Your task to perform on an android device: Go to accessibility settings Image 0: 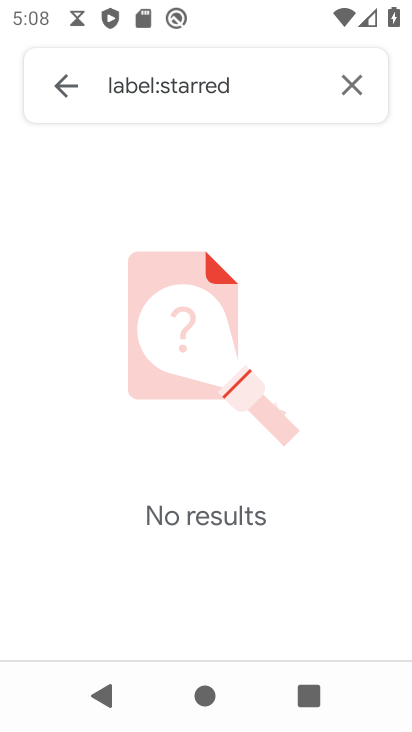
Step 0: press back button
Your task to perform on an android device: Go to accessibility settings Image 1: 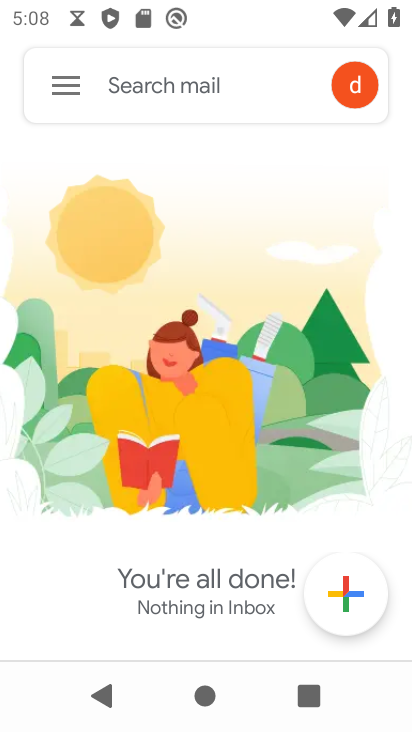
Step 1: press back button
Your task to perform on an android device: Go to accessibility settings Image 2: 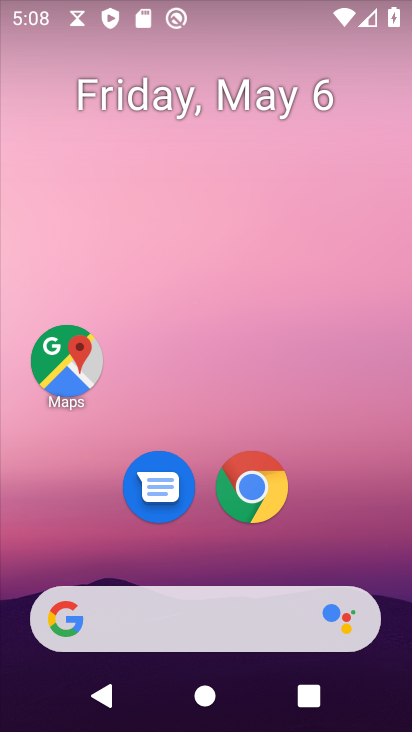
Step 2: drag from (357, 558) to (351, 1)
Your task to perform on an android device: Go to accessibility settings Image 3: 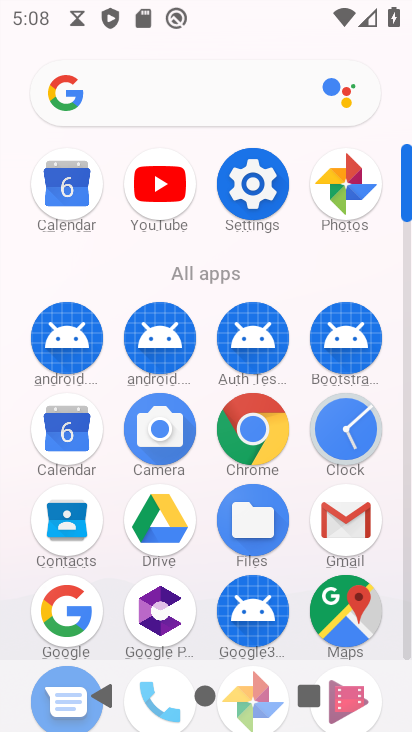
Step 3: click (252, 186)
Your task to perform on an android device: Go to accessibility settings Image 4: 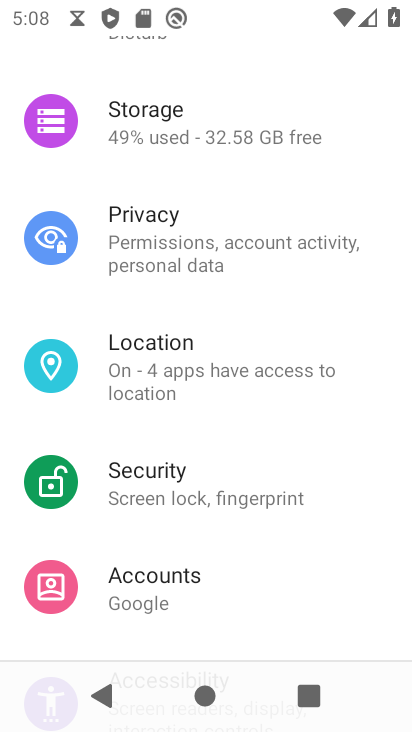
Step 4: drag from (238, 468) to (281, 346)
Your task to perform on an android device: Go to accessibility settings Image 5: 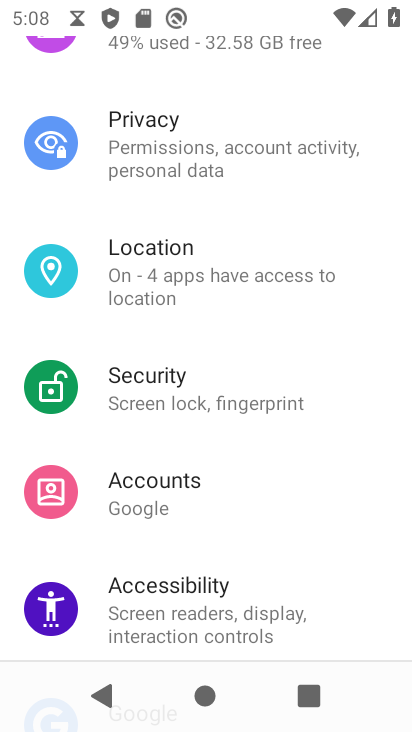
Step 5: drag from (221, 524) to (297, 370)
Your task to perform on an android device: Go to accessibility settings Image 6: 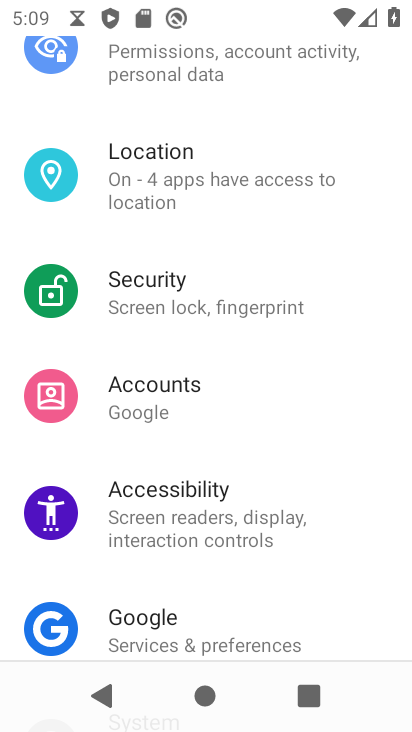
Step 6: click (181, 491)
Your task to perform on an android device: Go to accessibility settings Image 7: 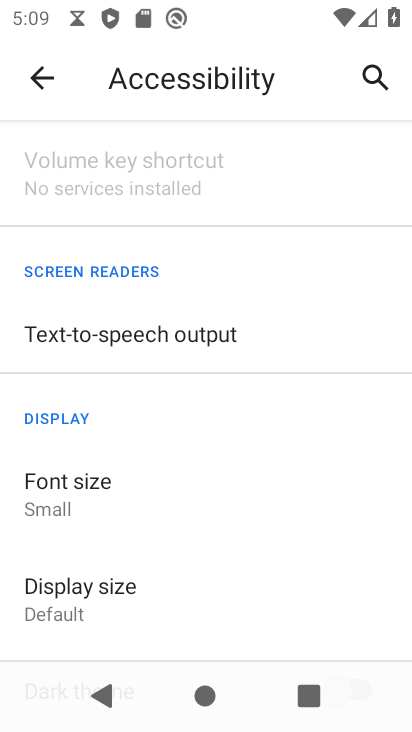
Step 7: task complete